Your task to perform on an android device: turn pop-ups off in chrome Image 0: 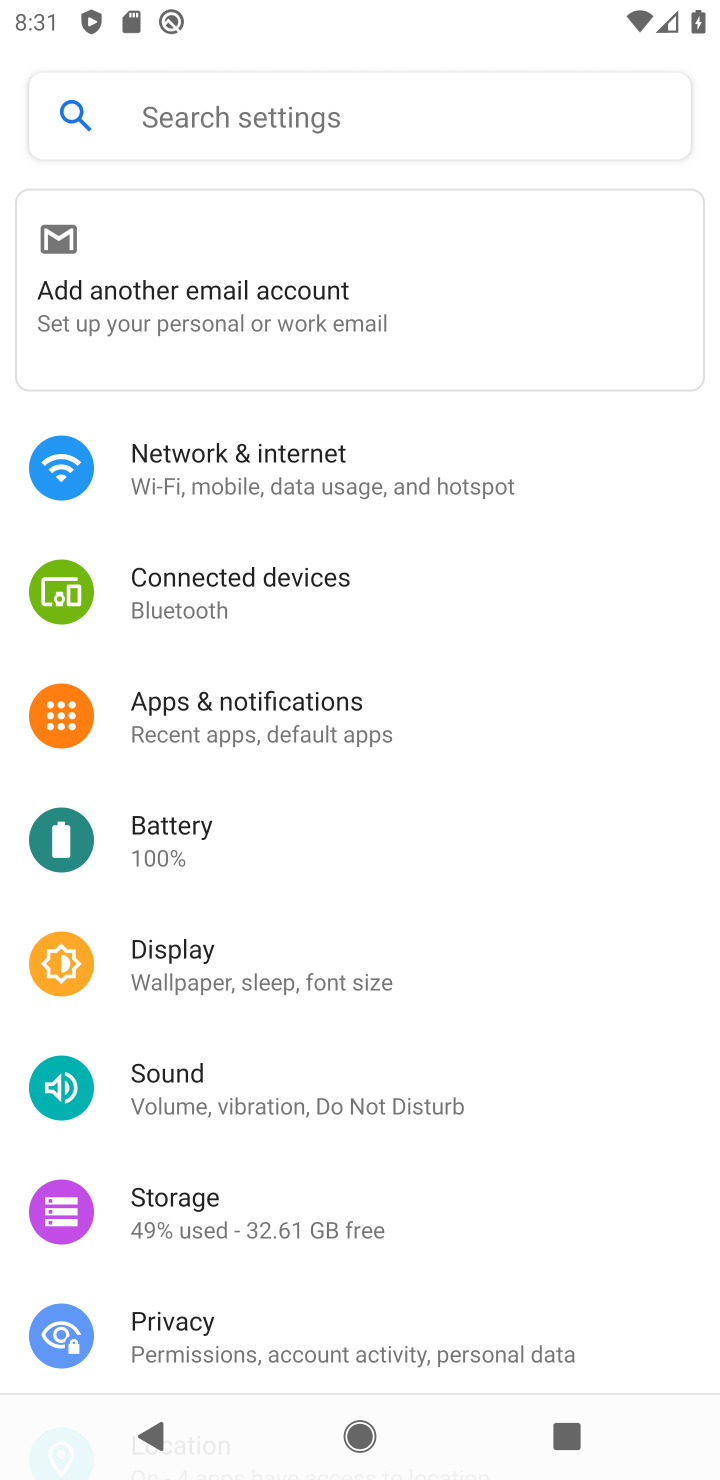
Step 0: press home button
Your task to perform on an android device: turn pop-ups off in chrome Image 1: 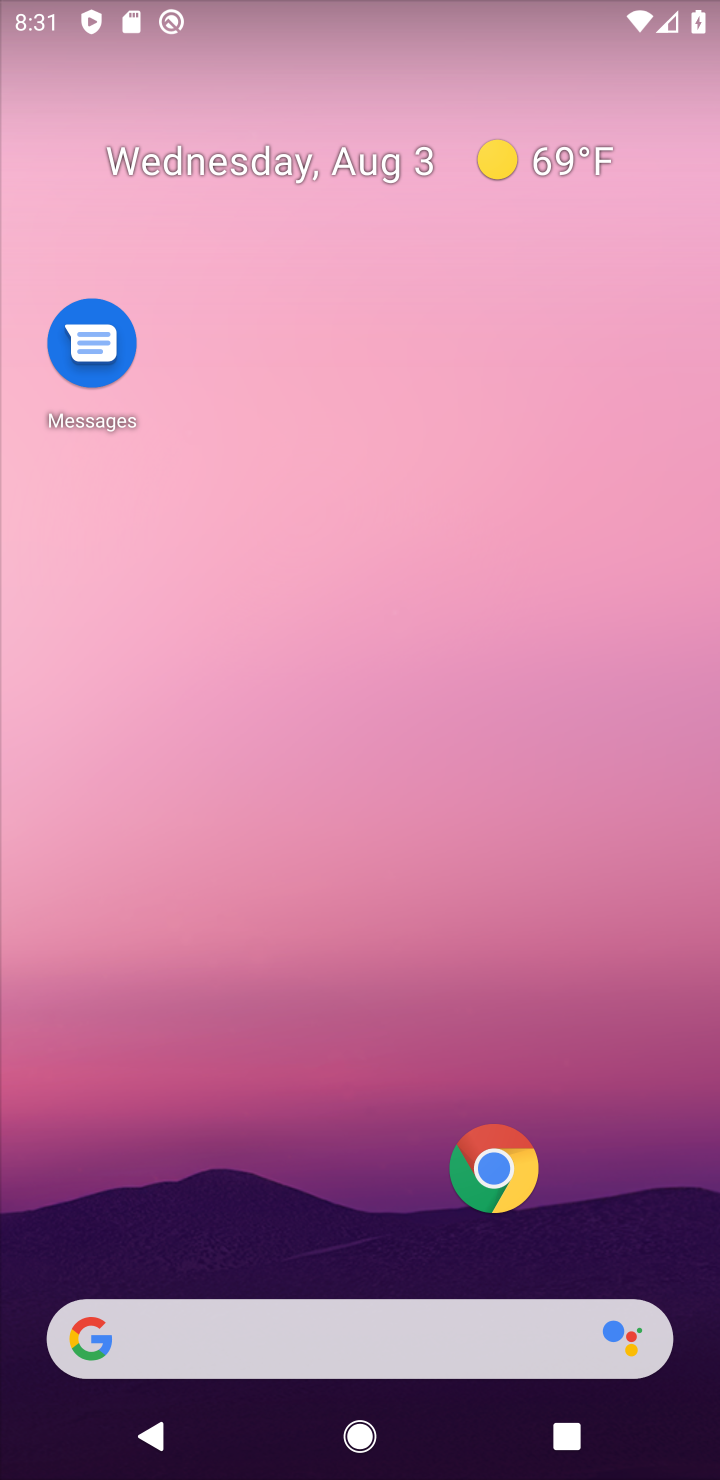
Step 1: click (438, 1205)
Your task to perform on an android device: turn pop-ups off in chrome Image 2: 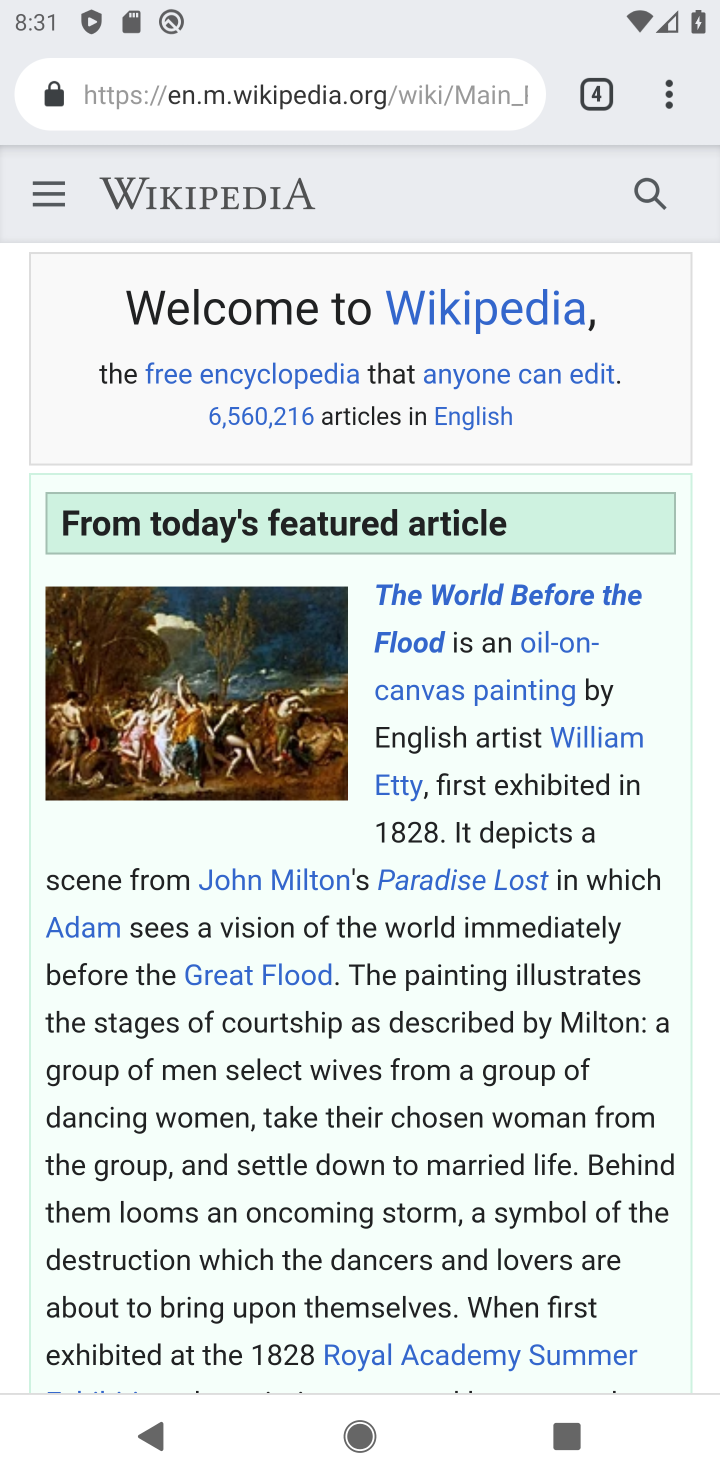
Step 2: drag from (684, 98) to (352, 1048)
Your task to perform on an android device: turn pop-ups off in chrome Image 3: 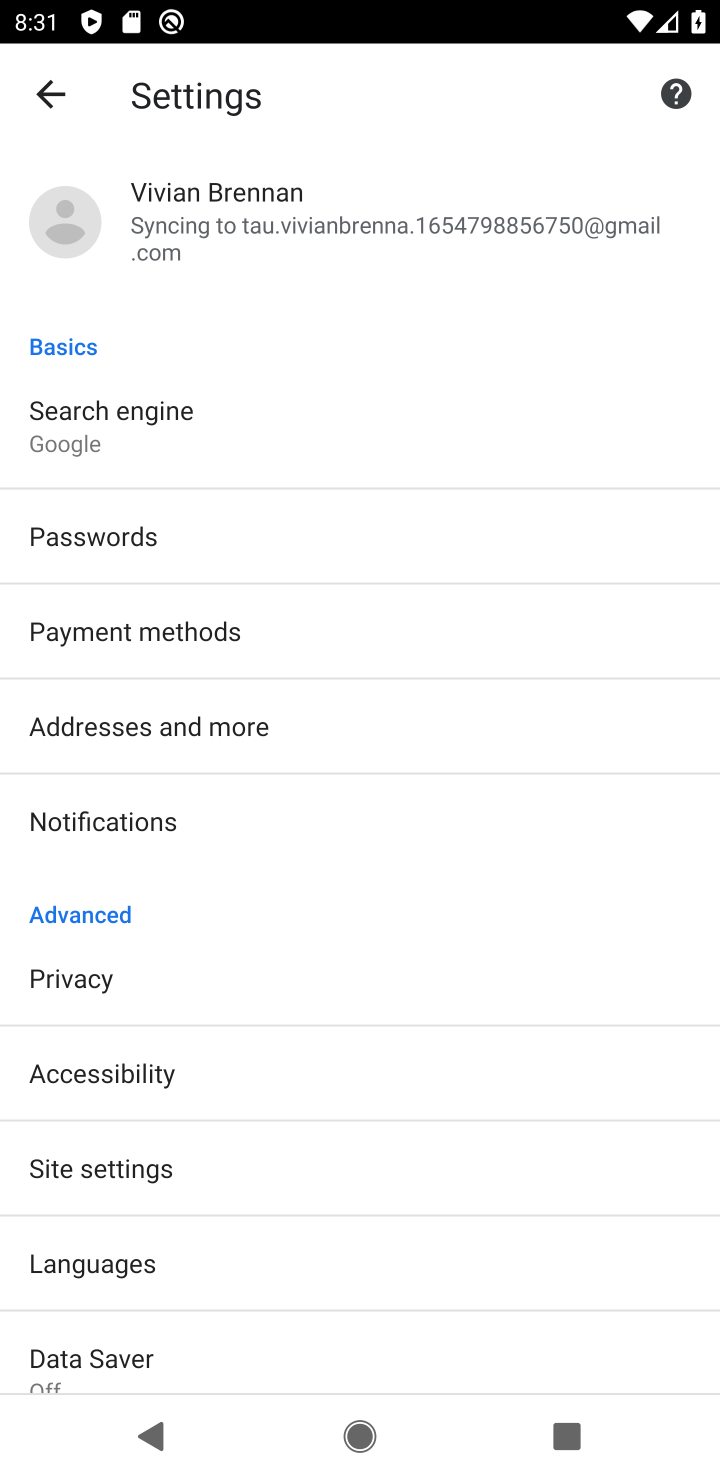
Step 3: click (6, 575)
Your task to perform on an android device: turn pop-ups off in chrome Image 4: 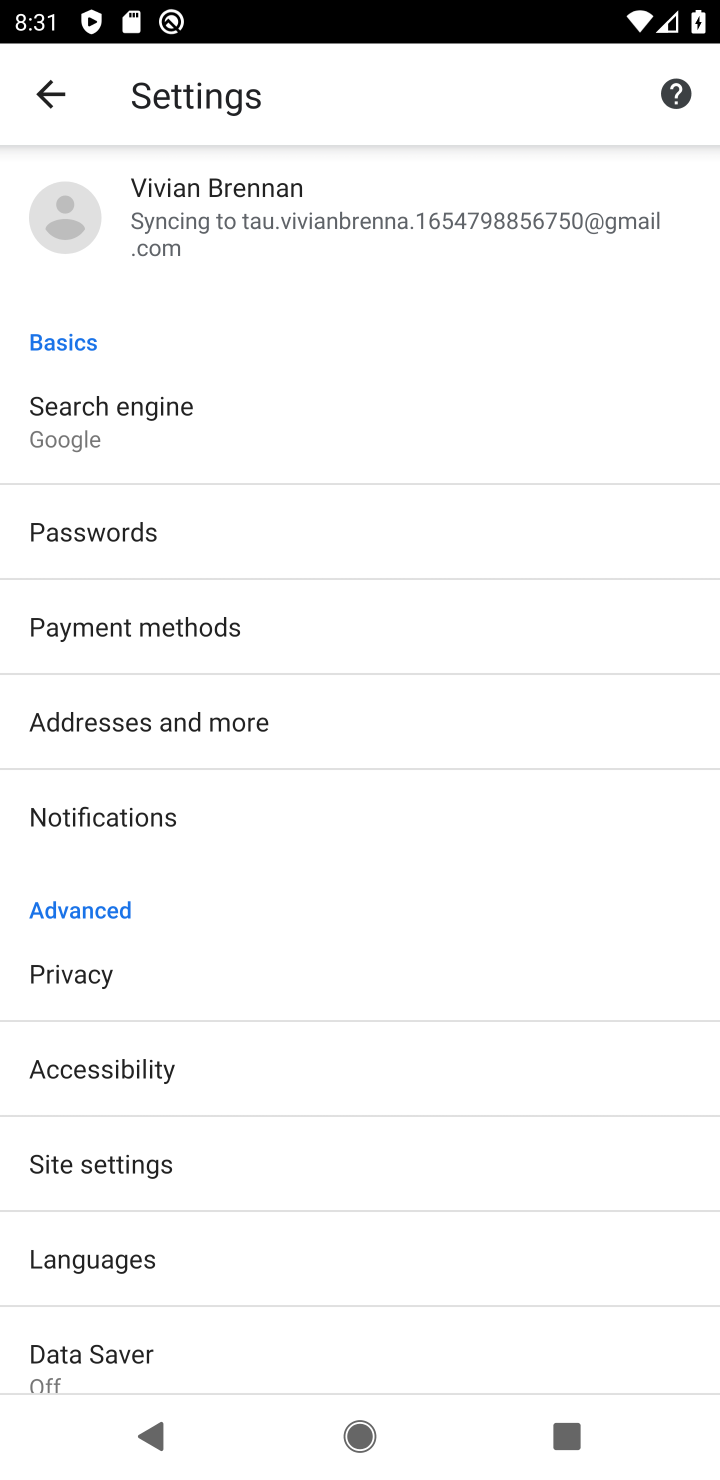
Step 4: click (152, 1156)
Your task to perform on an android device: turn pop-ups off in chrome Image 5: 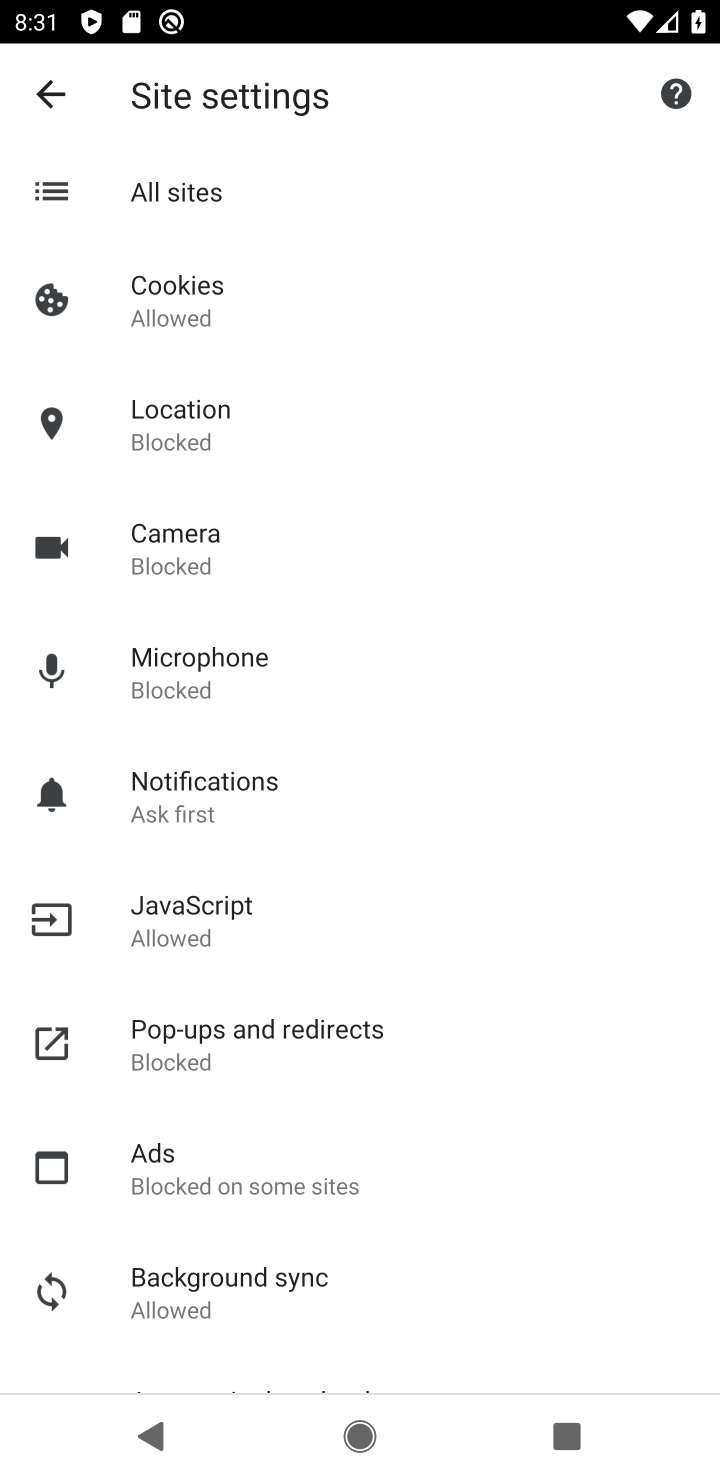
Step 5: click (200, 1078)
Your task to perform on an android device: turn pop-ups off in chrome Image 6: 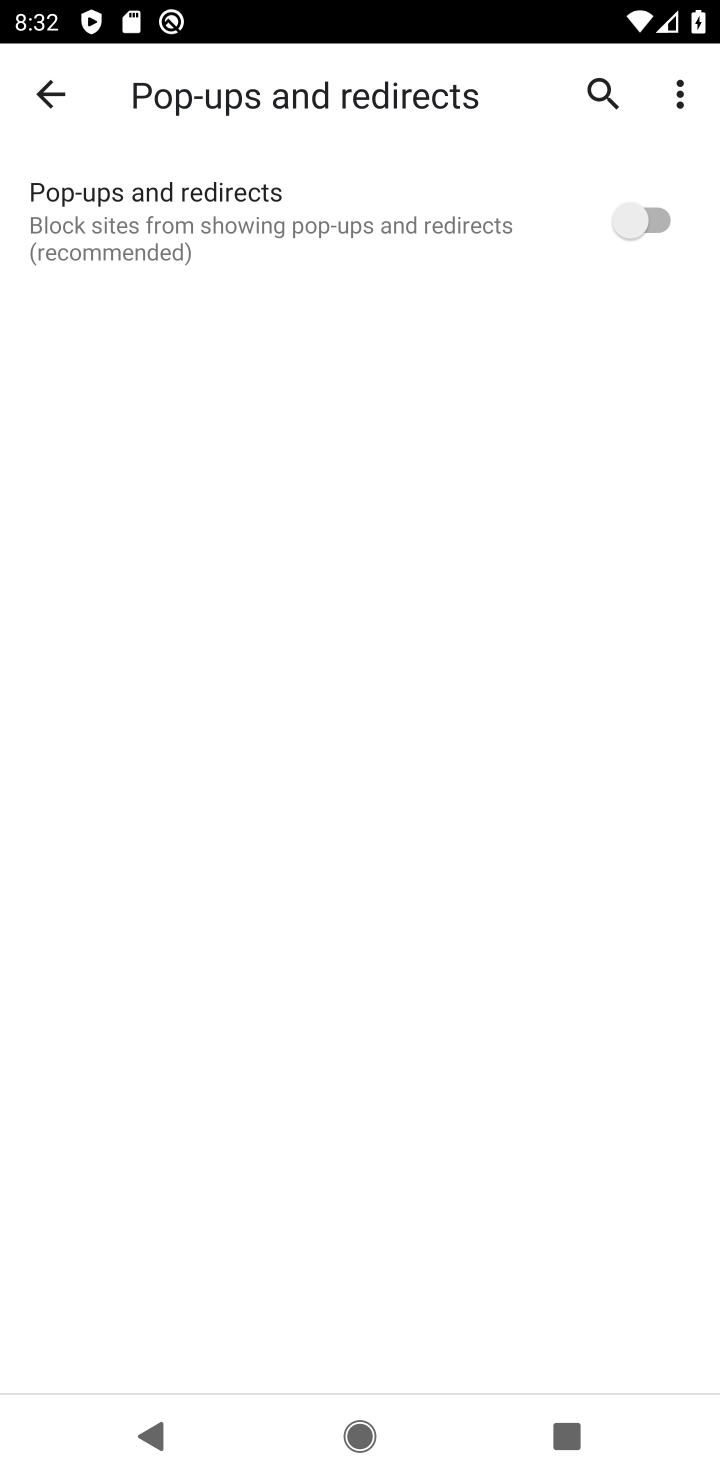
Step 6: task complete